Your task to perform on an android device: Go to display settings Image 0: 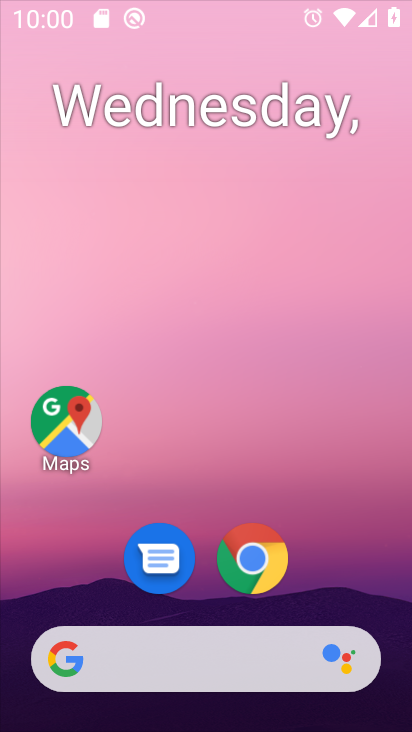
Step 0: drag from (374, 301) to (377, 216)
Your task to perform on an android device: Go to display settings Image 1: 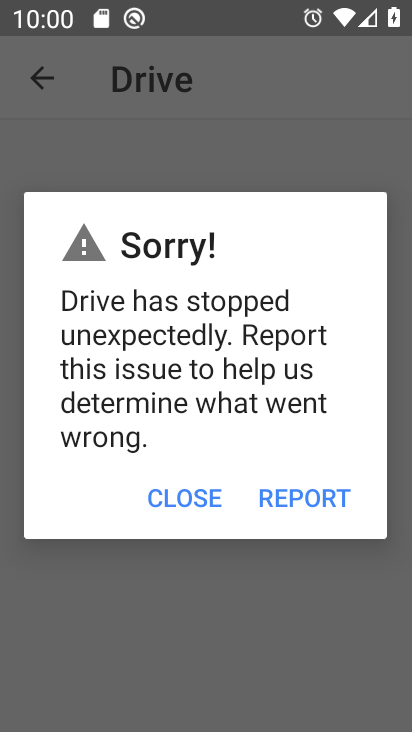
Step 1: press home button
Your task to perform on an android device: Go to display settings Image 2: 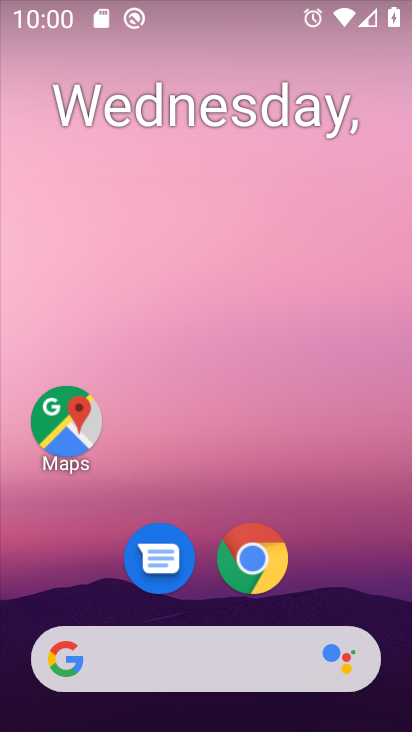
Step 2: drag from (377, 587) to (383, 172)
Your task to perform on an android device: Go to display settings Image 3: 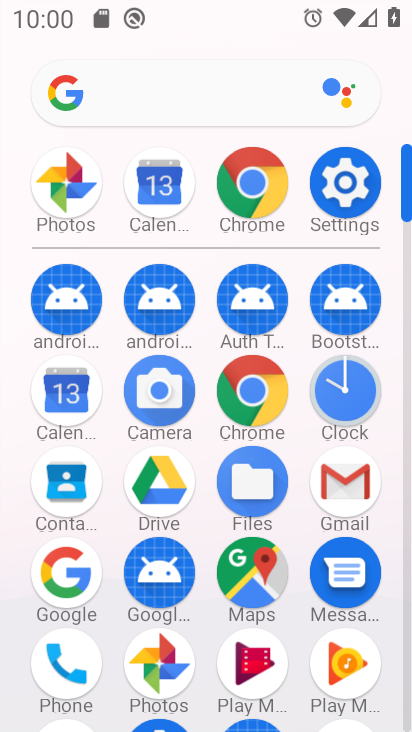
Step 3: click (343, 201)
Your task to perform on an android device: Go to display settings Image 4: 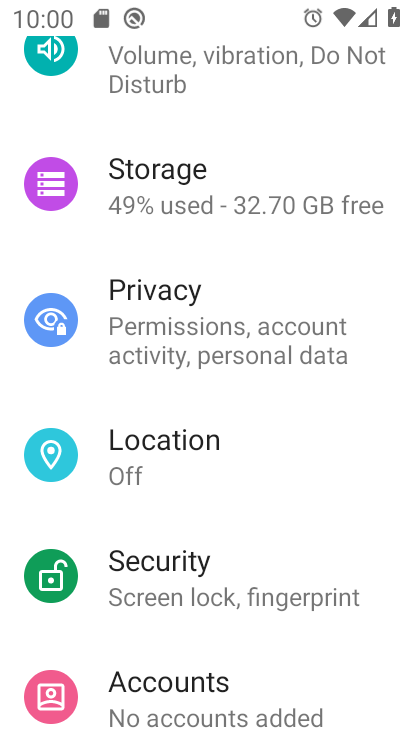
Step 4: drag from (326, 524) to (346, 404)
Your task to perform on an android device: Go to display settings Image 5: 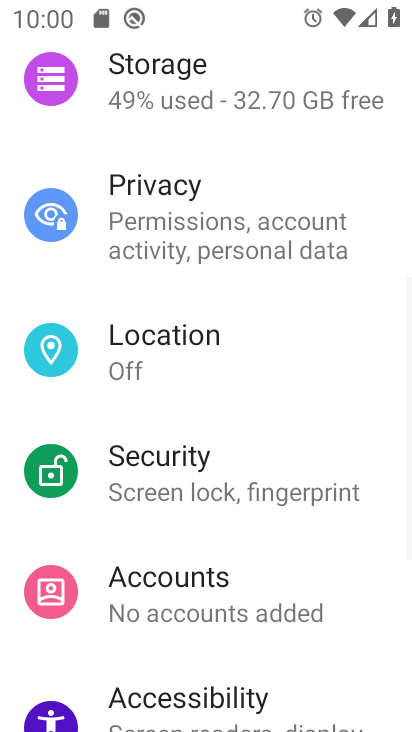
Step 5: drag from (352, 552) to (343, 434)
Your task to perform on an android device: Go to display settings Image 6: 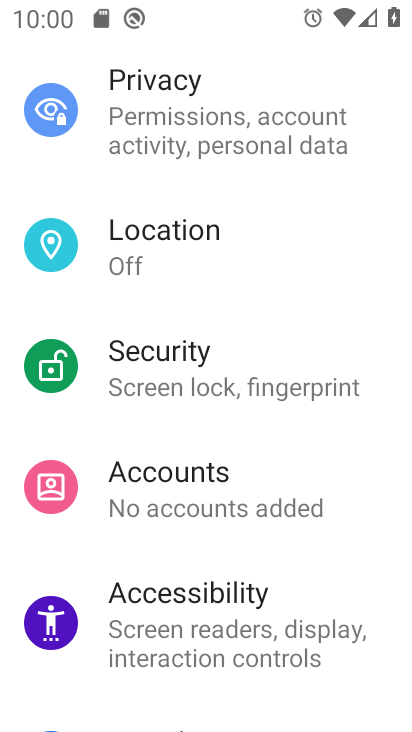
Step 6: drag from (342, 560) to (345, 437)
Your task to perform on an android device: Go to display settings Image 7: 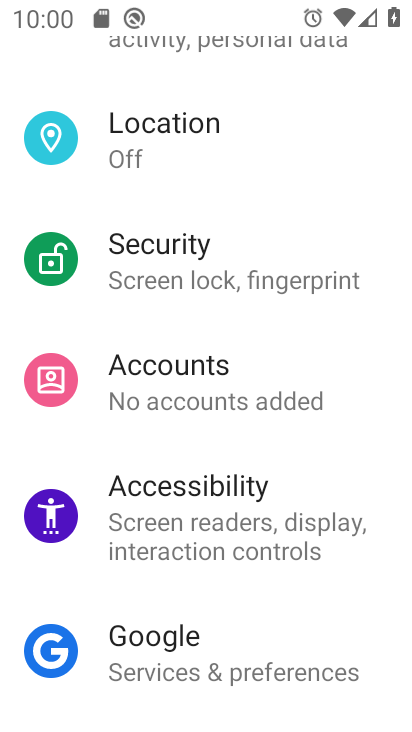
Step 7: drag from (356, 591) to (354, 448)
Your task to perform on an android device: Go to display settings Image 8: 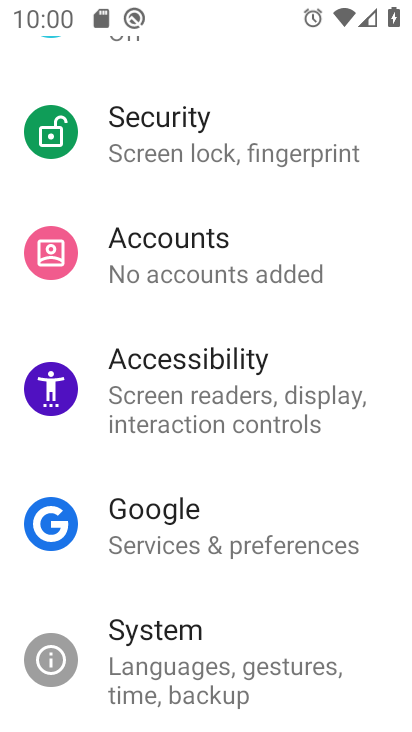
Step 8: drag from (366, 598) to (360, 474)
Your task to perform on an android device: Go to display settings Image 9: 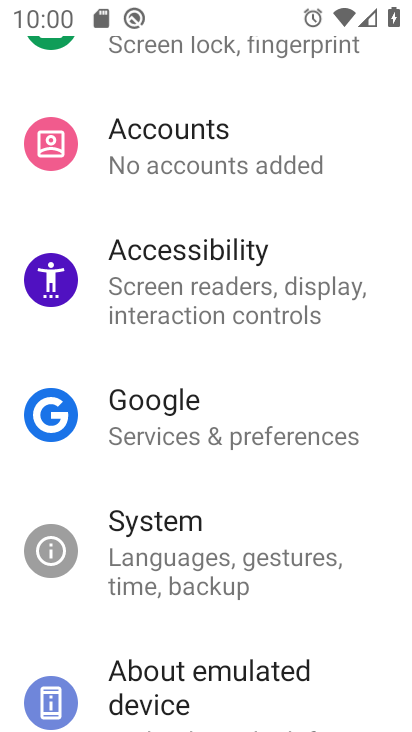
Step 9: drag from (364, 623) to (363, 490)
Your task to perform on an android device: Go to display settings Image 10: 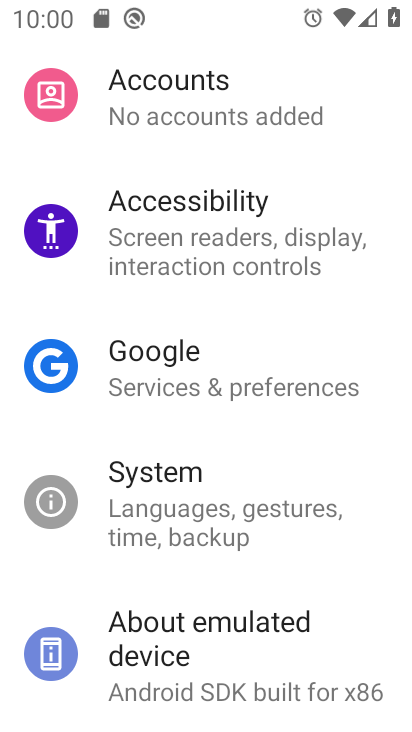
Step 10: drag from (346, 568) to (353, 430)
Your task to perform on an android device: Go to display settings Image 11: 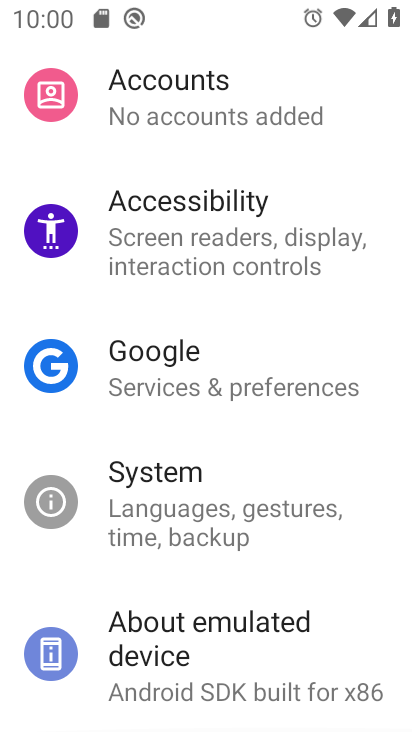
Step 11: drag from (358, 302) to (360, 442)
Your task to perform on an android device: Go to display settings Image 12: 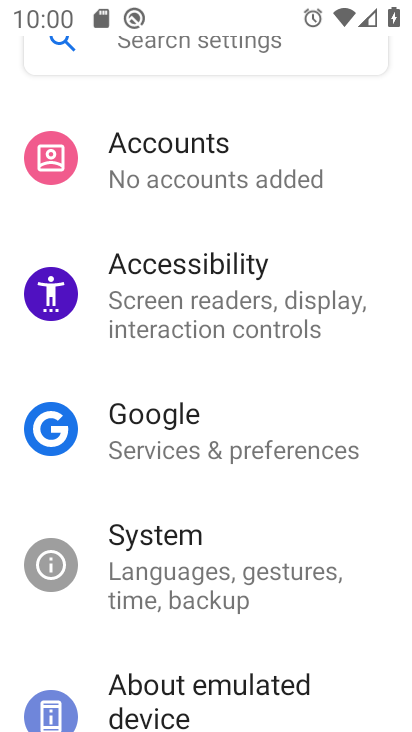
Step 12: drag from (372, 258) to (368, 393)
Your task to perform on an android device: Go to display settings Image 13: 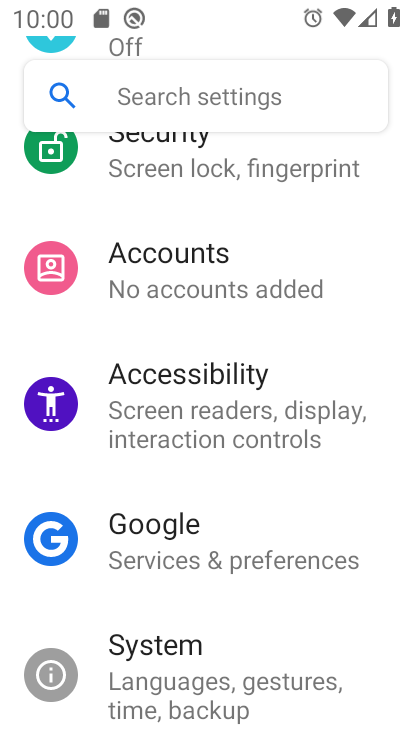
Step 13: drag from (362, 275) to (360, 391)
Your task to perform on an android device: Go to display settings Image 14: 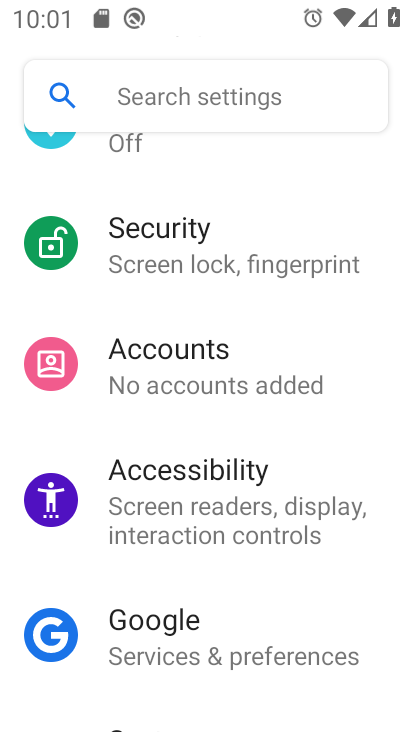
Step 14: drag from (367, 264) to (368, 394)
Your task to perform on an android device: Go to display settings Image 15: 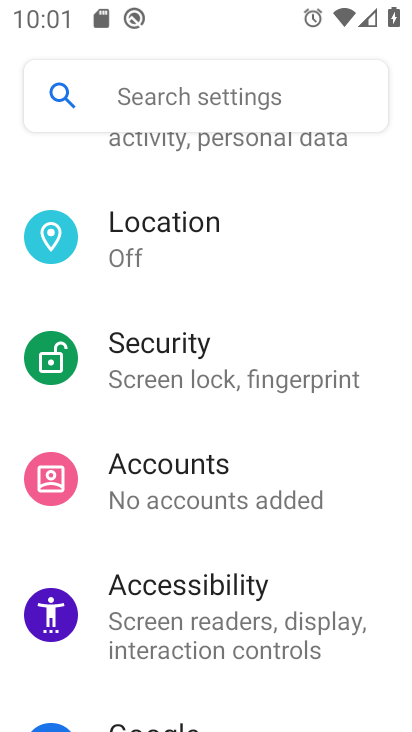
Step 15: drag from (358, 270) to (356, 446)
Your task to perform on an android device: Go to display settings Image 16: 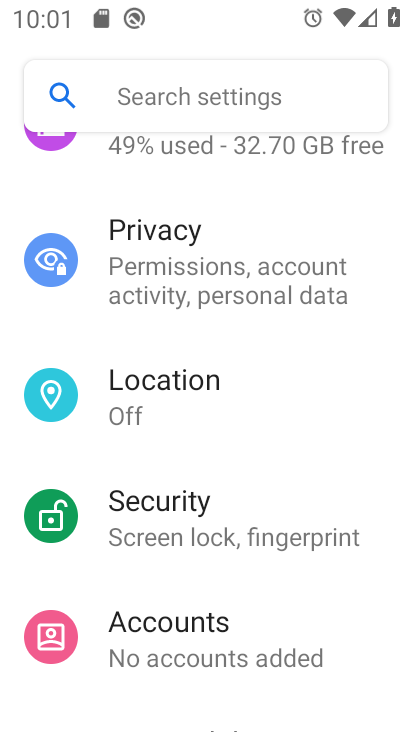
Step 16: drag from (351, 345) to (351, 464)
Your task to perform on an android device: Go to display settings Image 17: 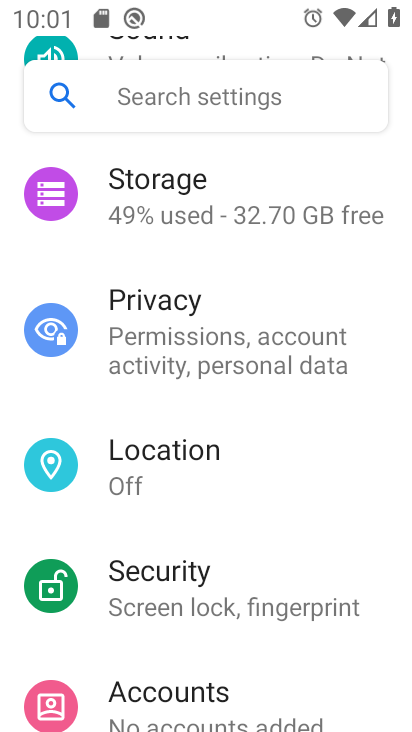
Step 17: drag from (357, 285) to (365, 417)
Your task to perform on an android device: Go to display settings Image 18: 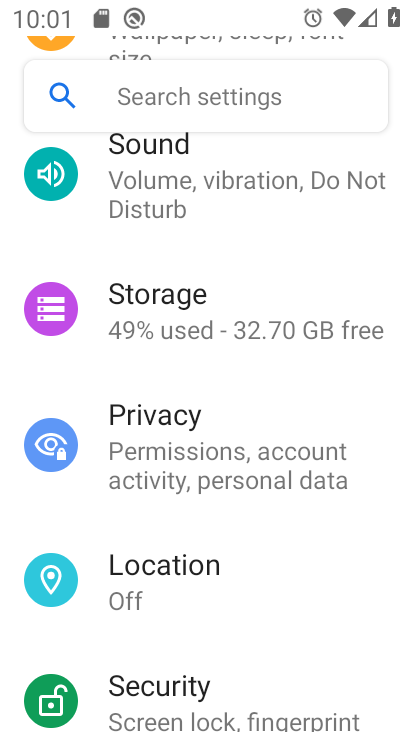
Step 18: drag from (353, 252) to (347, 384)
Your task to perform on an android device: Go to display settings Image 19: 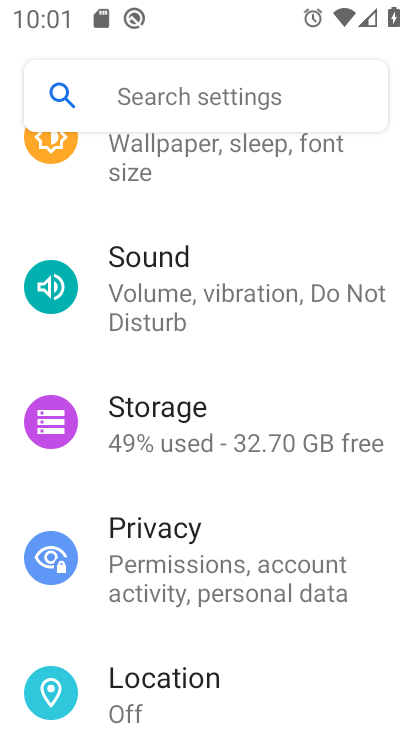
Step 19: drag from (324, 208) to (326, 410)
Your task to perform on an android device: Go to display settings Image 20: 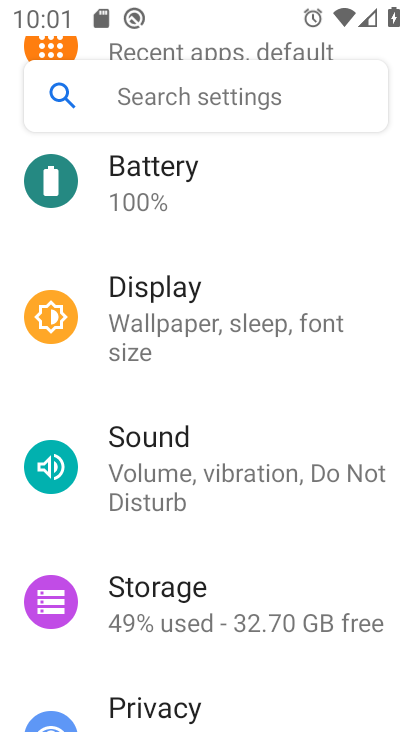
Step 20: click (302, 328)
Your task to perform on an android device: Go to display settings Image 21: 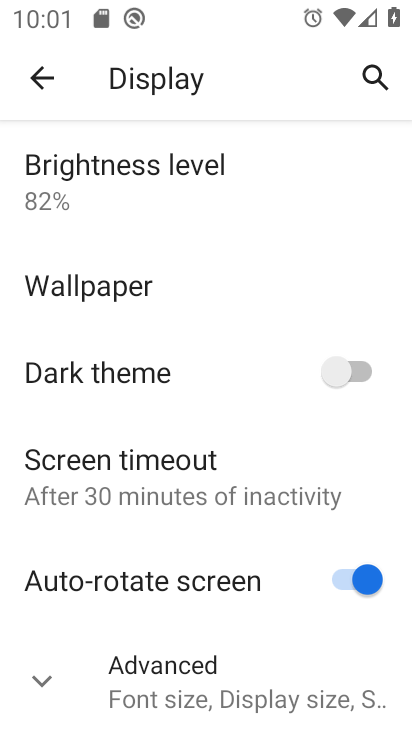
Step 21: task complete